Your task to perform on an android device: see tabs open on other devices in the chrome app Image 0: 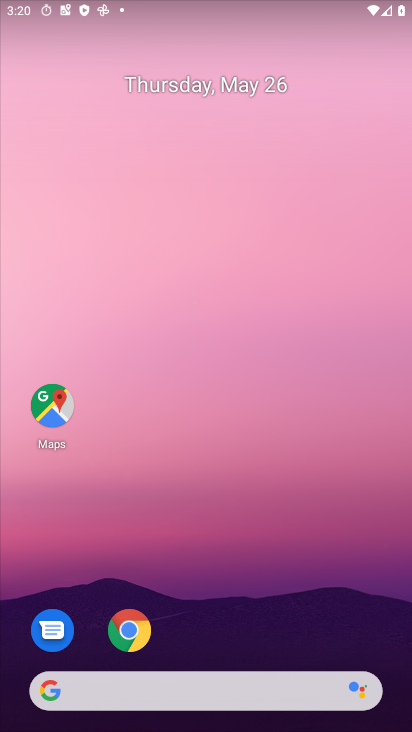
Step 0: click (134, 631)
Your task to perform on an android device: see tabs open on other devices in the chrome app Image 1: 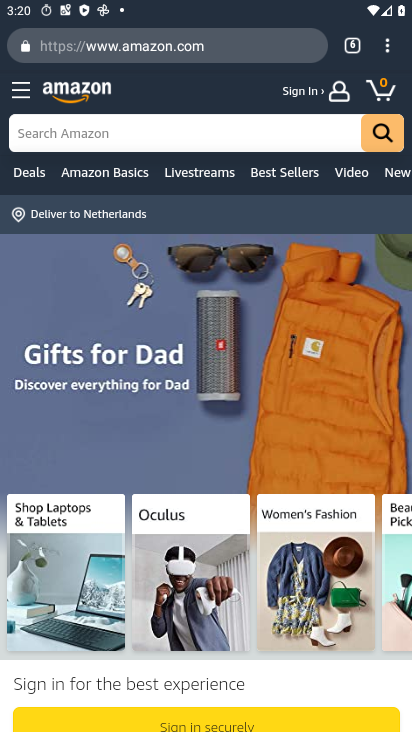
Step 1: click (382, 38)
Your task to perform on an android device: see tabs open on other devices in the chrome app Image 2: 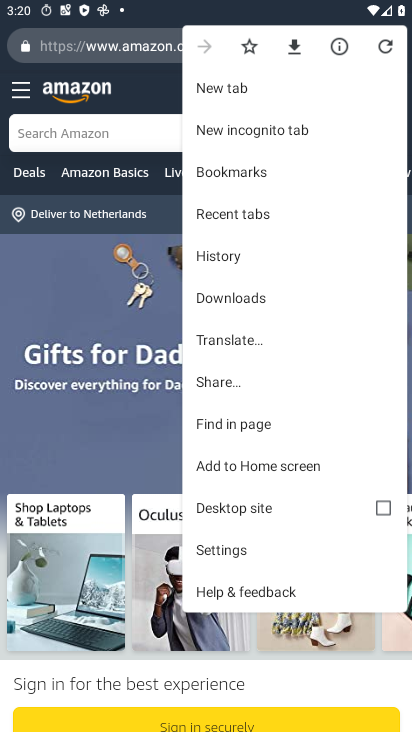
Step 2: click (135, 59)
Your task to perform on an android device: see tabs open on other devices in the chrome app Image 3: 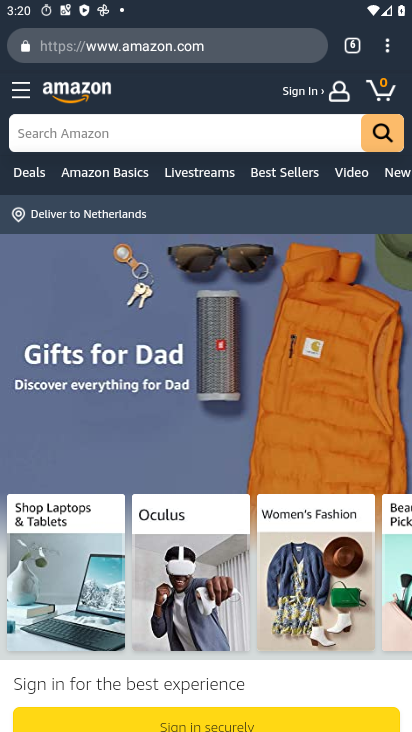
Step 3: task complete